Your task to perform on an android device: change the clock display to show seconds Image 0: 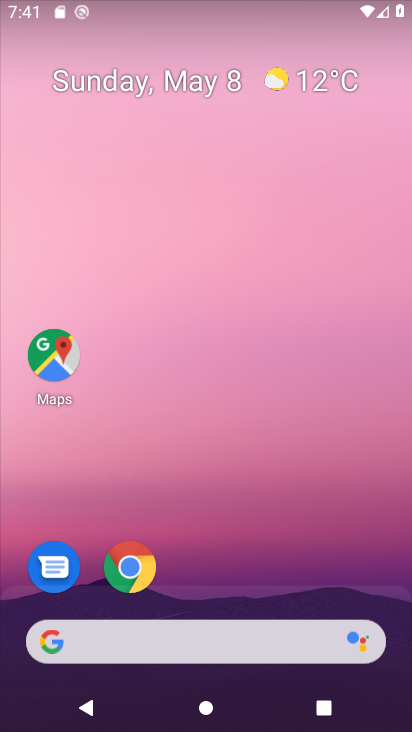
Step 0: drag from (211, 596) to (204, 180)
Your task to perform on an android device: change the clock display to show seconds Image 1: 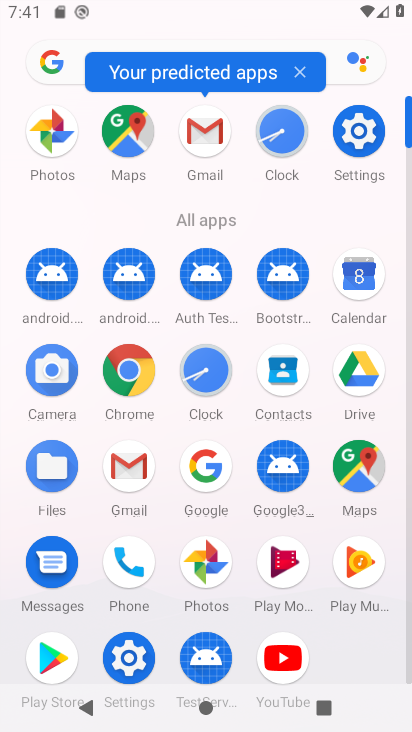
Step 1: click (282, 137)
Your task to perform on an android device: change the clock display to show seconds Image 2: 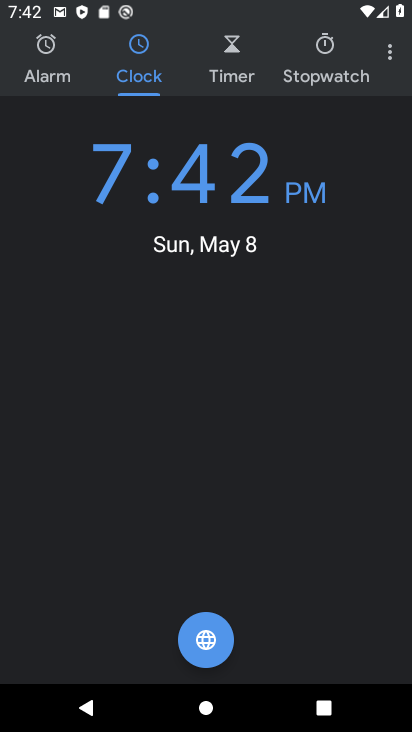
Step 2: click (385, 45)
Your task to perform on an android device: change the clock display to show seconds Image 3: 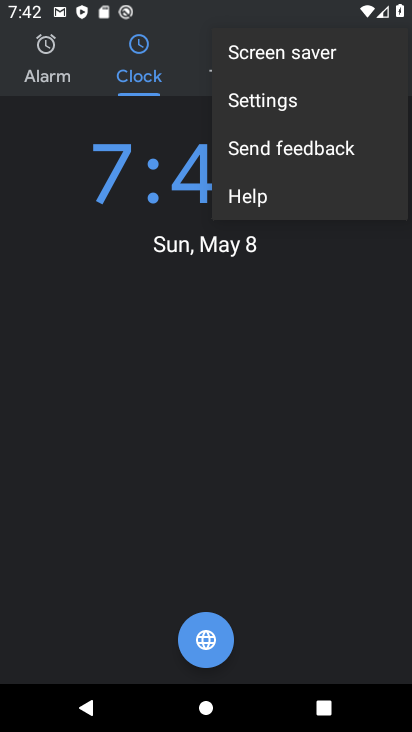
Step 3: click (331, 101)
Your task to perform on an android device: change the clock display to show seconds Image 4: 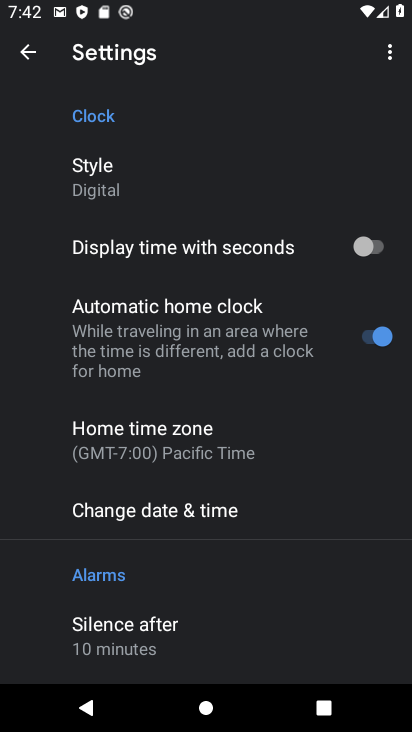
Step 4: click (356, 250)
Your task to perform on an android device: change the clock display to show seconds Image 5: 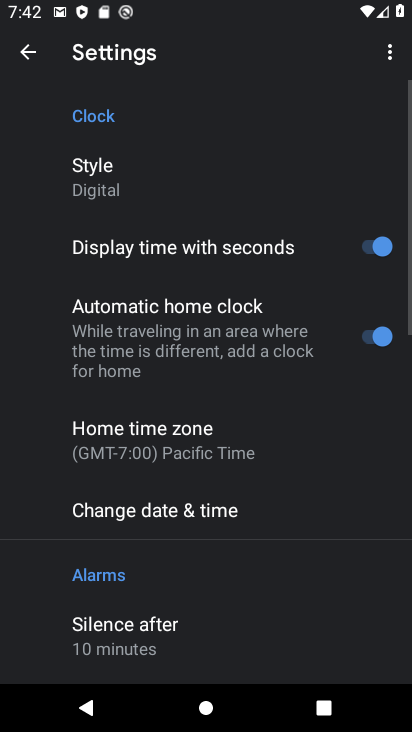
Step 5: task complete